Your task to perform on an android device: Toggle the flashlight Image 0: 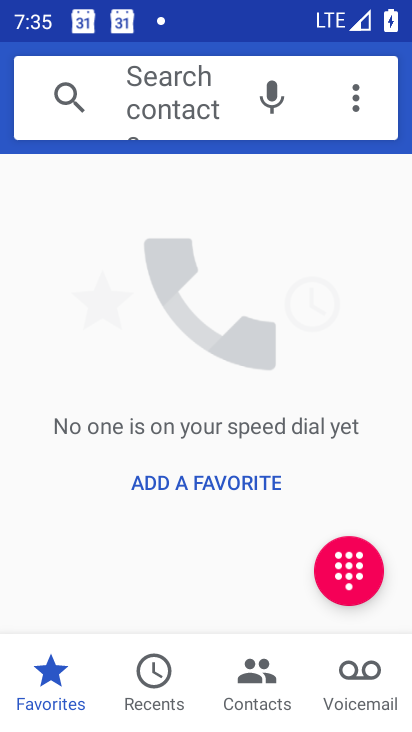
Step 0: drag from (261, 662) to (187, 211)
Your task to perform on an android device: Toggle the flashlight Image 1: 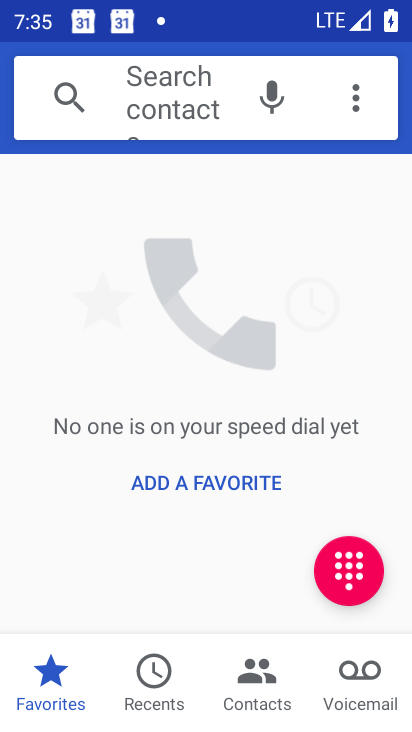
Step 1: press home button
Your task to perform on an android device: Toggle the flashlight Image 2: 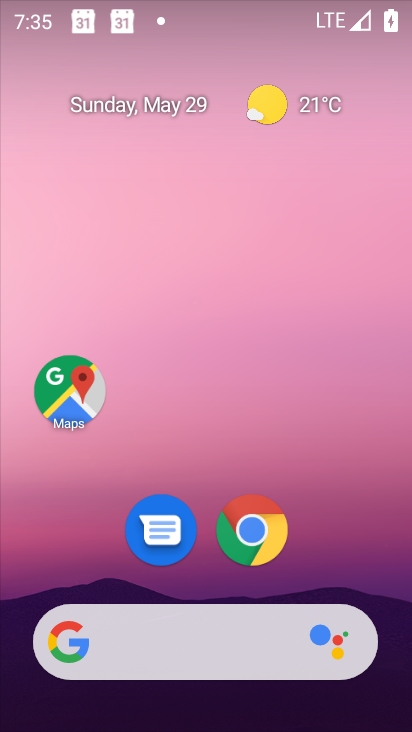
Step 2: drag from (244, 688) to (219, 112)
Your task to perform on an android device: Toggle the flashlight Image 3: 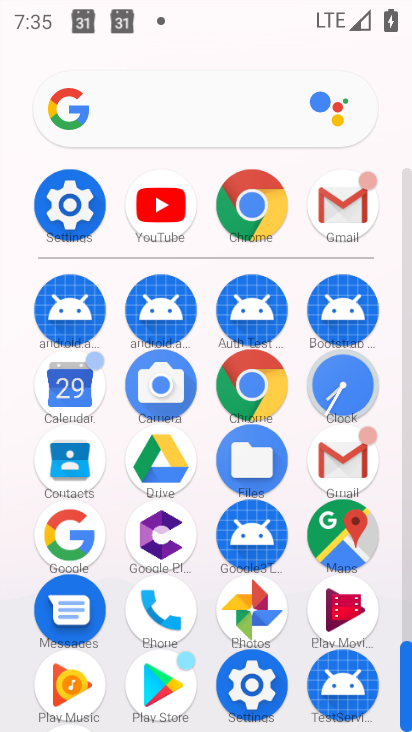
Step 3: click (256, 676)
Your task to perform on an android device: Toggle the flashlight Image 4: 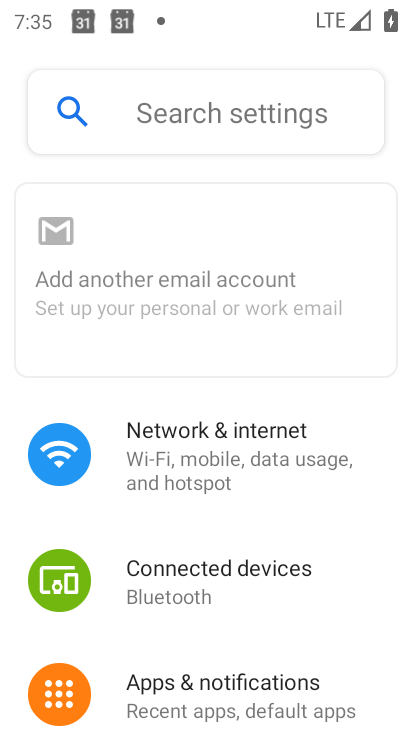
Step 4: click (163, 109)
Your task to perform on an android device: Toggle the flashlight Image 5: 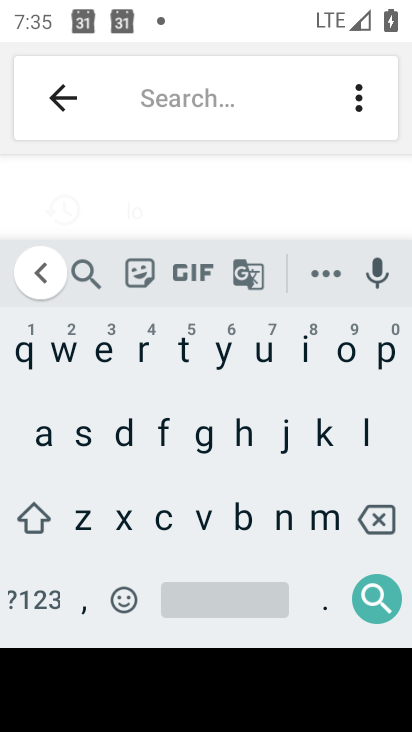
Step 5: click (157, 427)
Your task to perform on an android device: Toggle the flashlight Image 6: 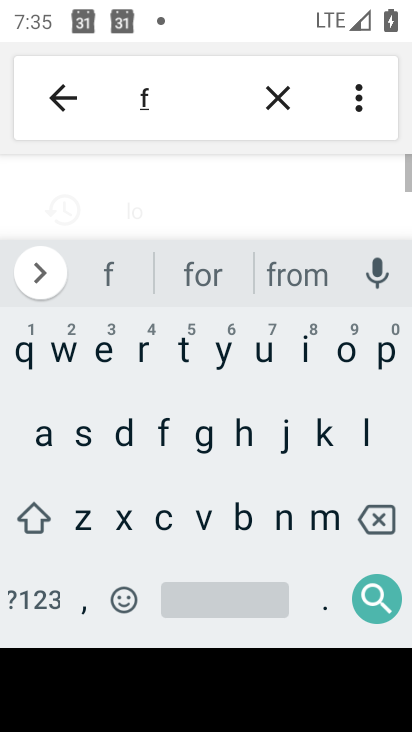
Step 6: click (369, 429)
Your task to perform on an android device: Toggle the flashlight Image 7: 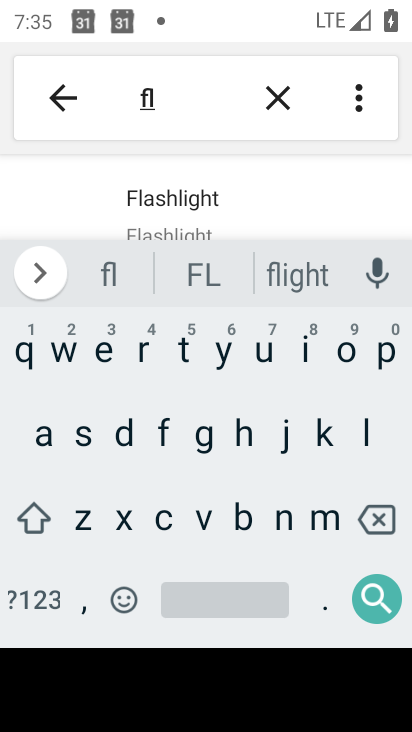
Step 7: click (195, 193)
Your task to perform on an android device: Toggle the flashlight Image 8: 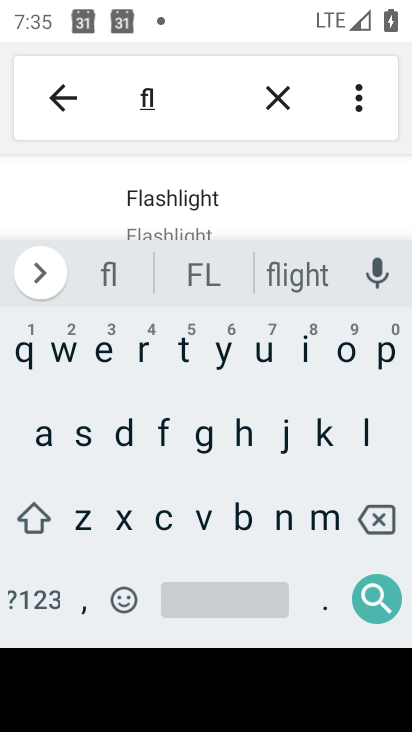
Step 8: click (196, 198)
Your task to perform on an android device: Toggle the flashlight Image 9: 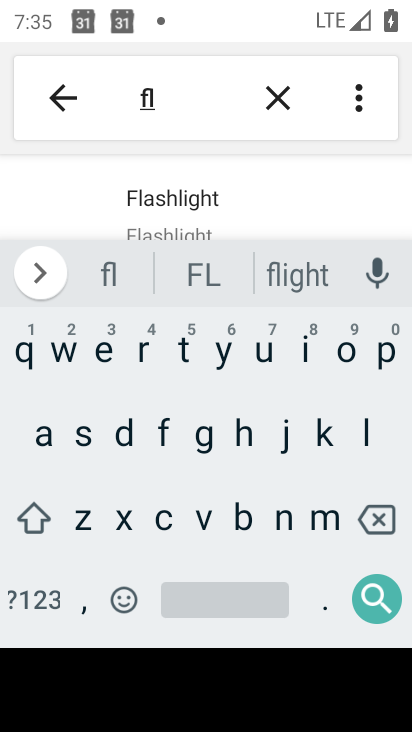
Step 9: task complete